Your task to perform on an android device: What's the weather going to be this weekend? Image 0: 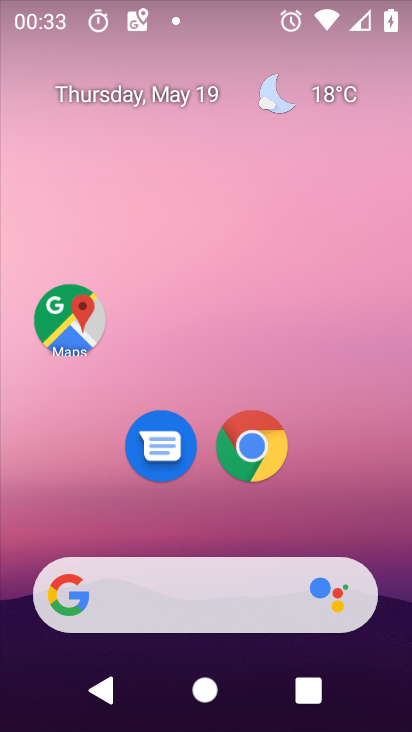
Step 0: press home button
Your task to perform on an android device: What's the weather going to be this weekend? Image 1: 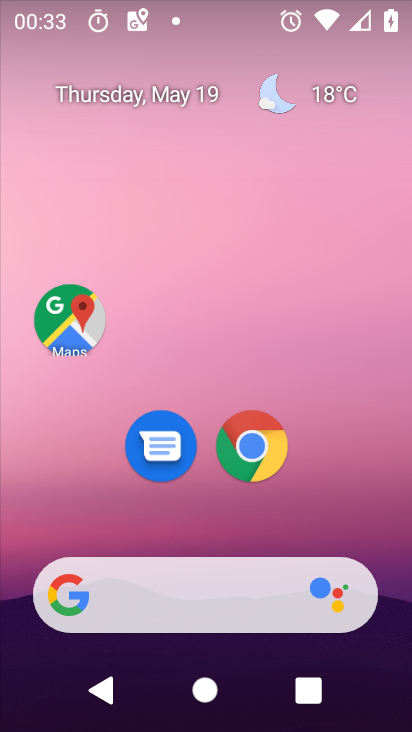
Step 1: click (336, 95)
Your task to perform on an android device: What's the weather going to be this weekend? Image 2: 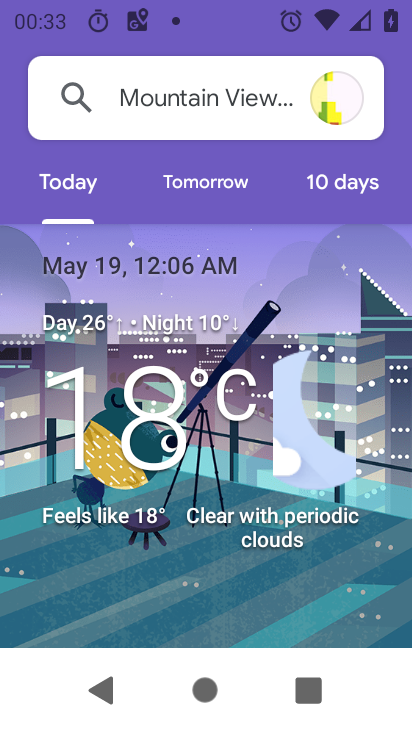
Step 2: click (356, 184)
Your task to perform on an android device: What's the weather going to be this weekend? Image 3: 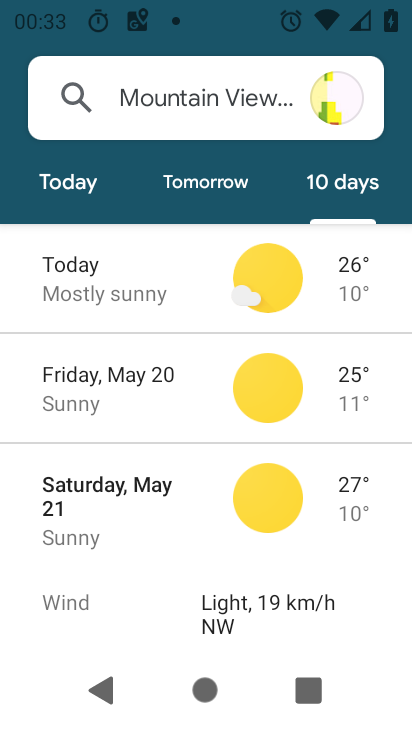
Step 3: task complete